Your task to perform on an android device: Search for Italian restaurants on Maps Image 0: 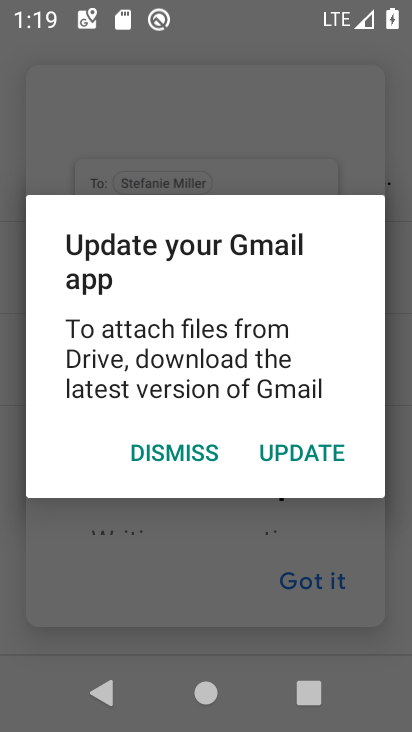
Step 0: click (371, 417)
Your task to perform on an android device: Search for Italian restaurants on Maps Image 1: 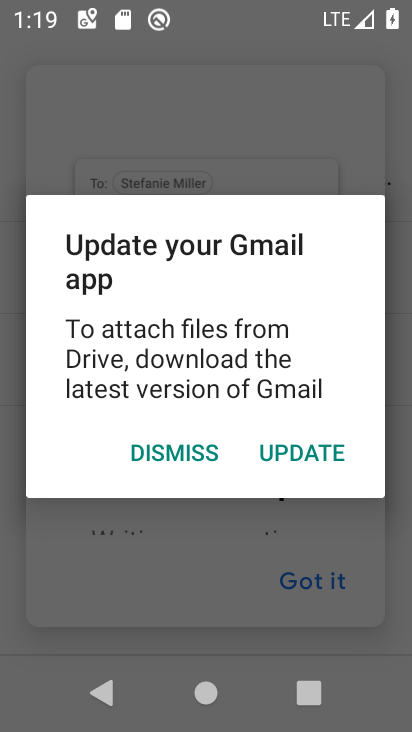
Step 1: press home button
Your task to perform on an android device: Search for Italian restaurants on Maps Image 2: 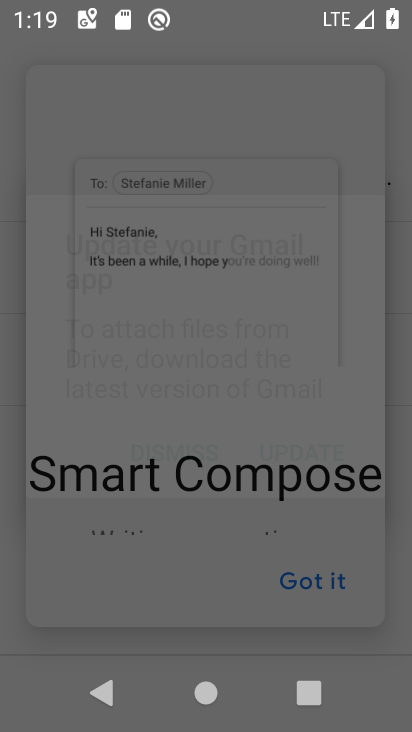
Step 2: press home button
Your task to perform on an android device: Search for Italian restaurants on Maps Image 3: 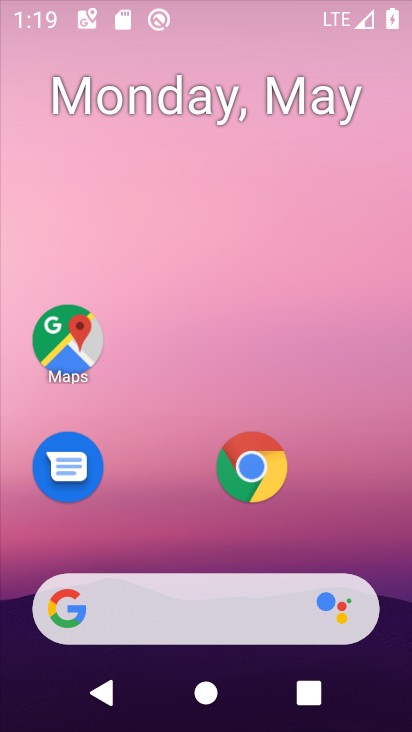
Step 3: drag from (209, 579) to (357, 42)
Your task to perform on an android device: Search for Italian restaurants on Maps Image 4: 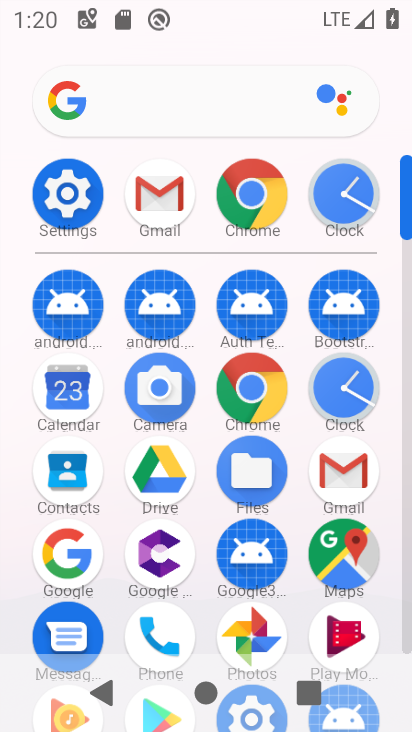
Step 4: click (332, 569)
Your task to perform on an android device: Search for Italian restaurants on Maps Image 5: 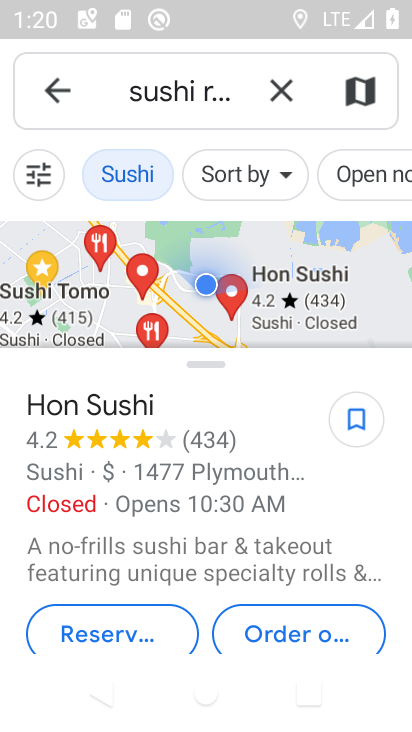
Step 5: click (299, 101)
Your task to perform on an android device: Search for Italian restaurants on Maps Image 6: 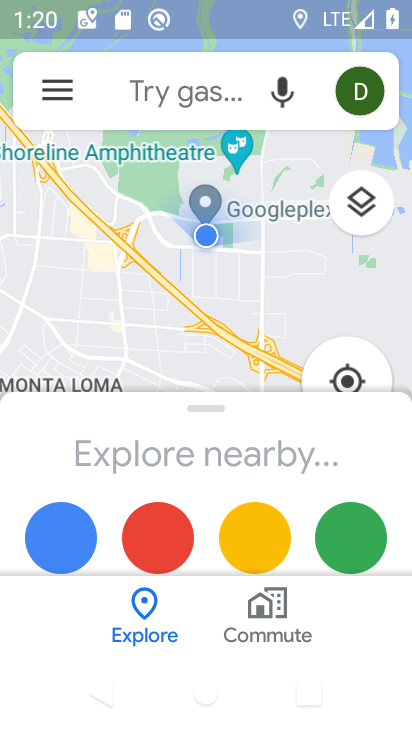
Step 6: click (152, 93)
Your task to perform on an android device: Search for Italian restaurants on Maps Image 7: 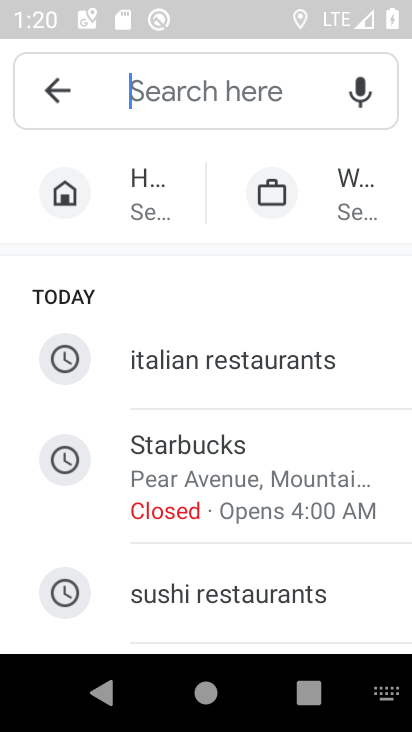
Step 7: click (187, 376)
Your task to perform on an android device: Search for Italian restaurants on Maps Image 8: 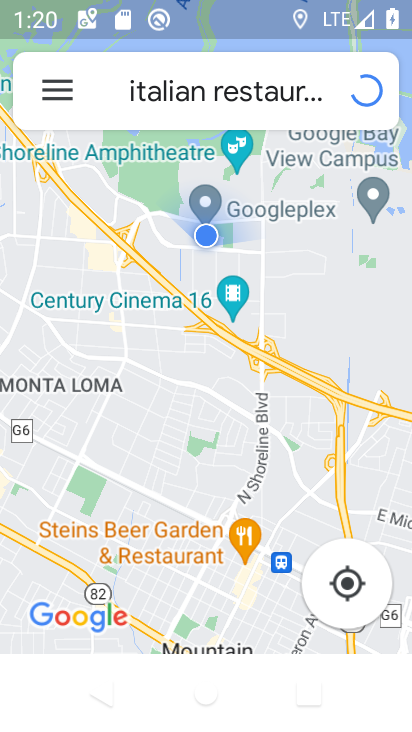
Step 8: drag from (220, 610) to (280, 259)
Your task to perform on an android device: Search for Italian restaurants on Maps Image 9: 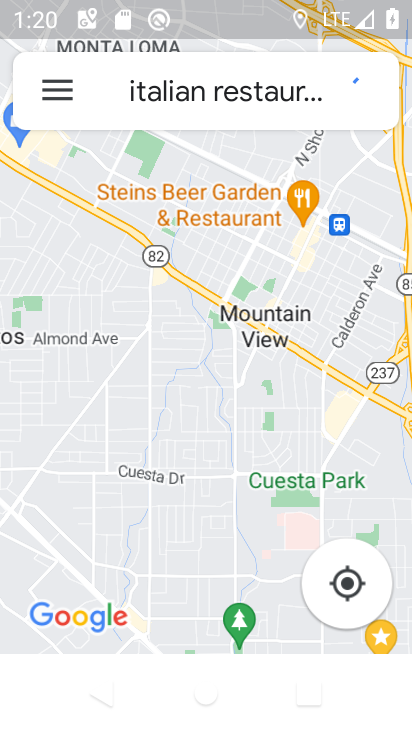
Step 9: drag from (233, 553) to (222, 691)
Your task to perform on an android device: Search for Italian restaurants on Maps Image 10: 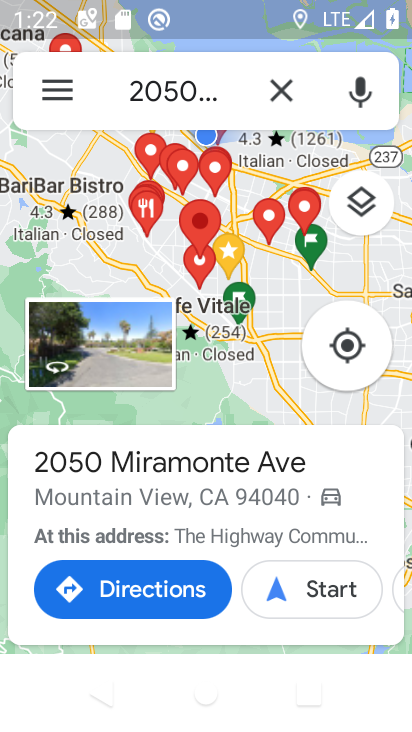
Step 10: drag from (252, 436) to (335, 5)
Your task to perform on an android device: Search for Italian restaurants on Maps Image 11: 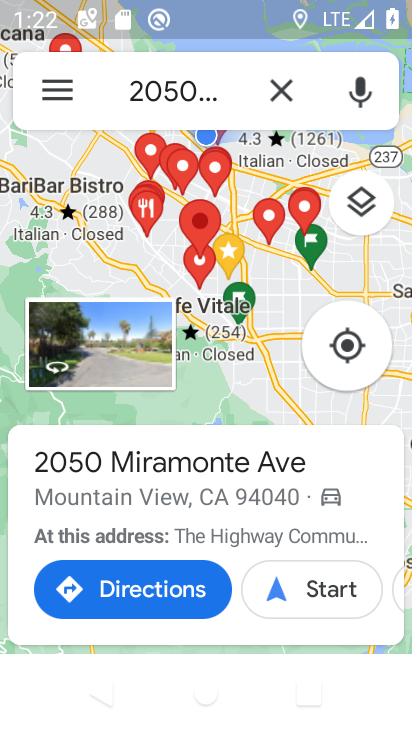
Step 11: click (289, 93)
Your task to perform on an android device: Search for Italian restaurants on Maps Image 12: 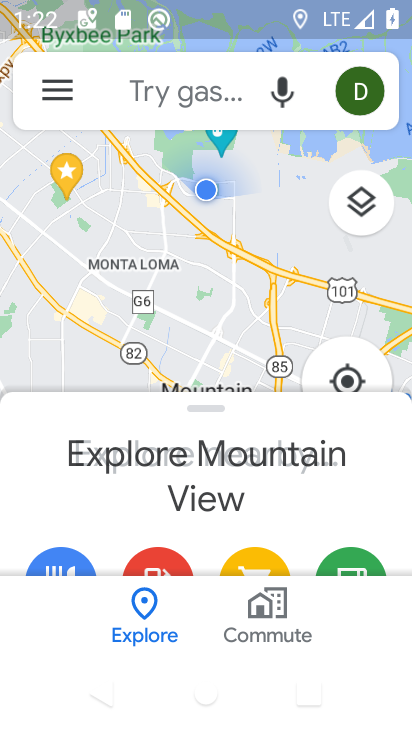
Step 12: click (159, 89)
Your task to perform on an android device: Search for Italian restaurants on Maps Image 13: 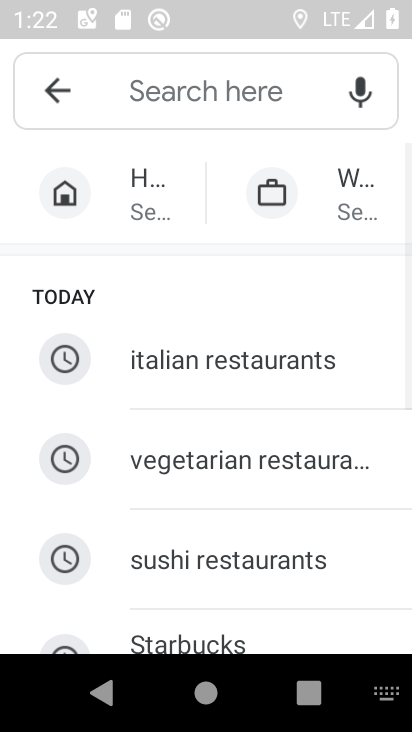
Step 13: click (174, 382)
Your task to perform on an android device: Search for Italian restaurants on Maps Image 14: 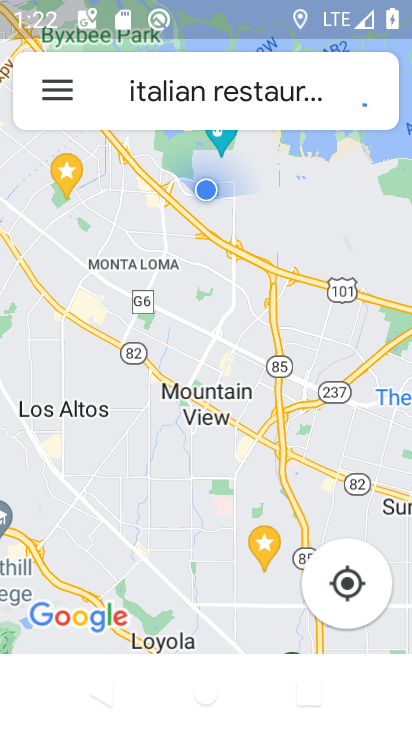
Step 14: task complete